Your task to perform on an android device: Find coffee shops on Maps Image 0: 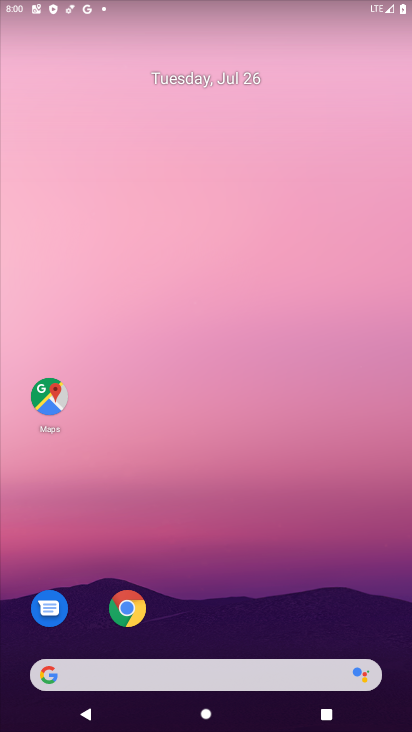
Step 0: drag from (270, 673) to (285, 75)
Your task to perform on an android device: Find coffee shops on Maps Image 1: 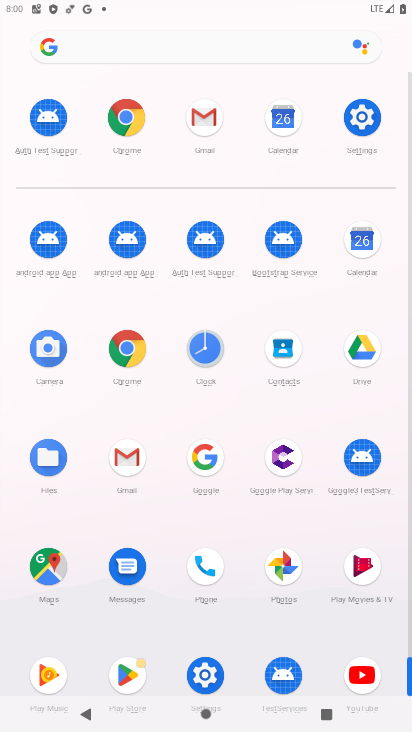
Step 1: click (54, 568)
Your task to perform on an android device: Find coffee shops on Maps Image 2: 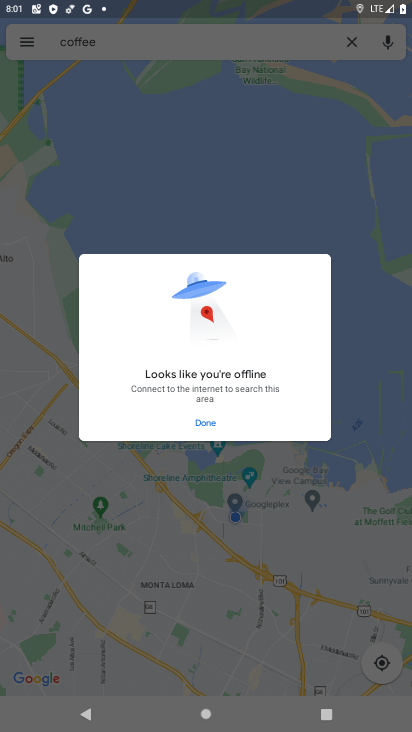
Step 2: task complete